Your task to perform on an android device: choose inbox layout in the gmail app Image 0: 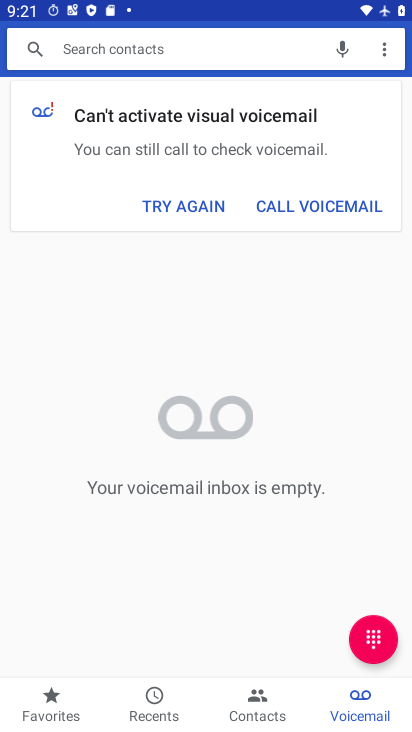
Step 0: press home button
Your task to perform on an android device: choose inbox layout in the gmail app Image 1: 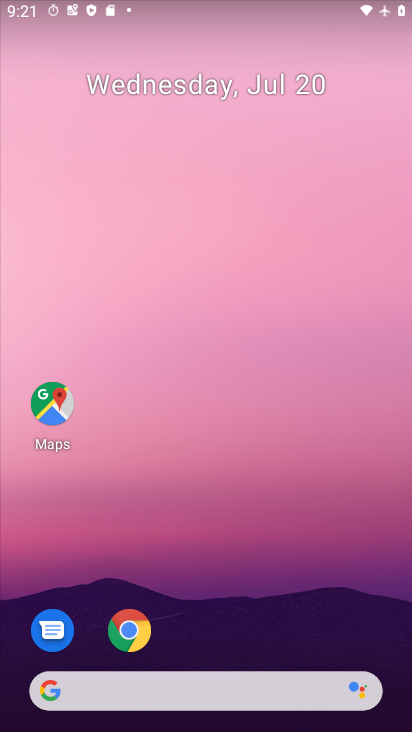
Step 1: drag from (221, 706) to (277, 106)
Your task to perform on an android device: choose inbox layout in the gmail app Image 2: 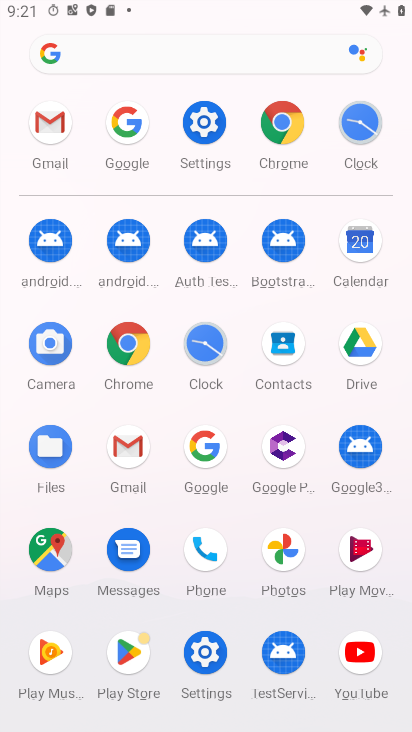
Step 2: click (139, 469)
Your task to perform on an android device: choose inbox layout in the gmail app Image 3: 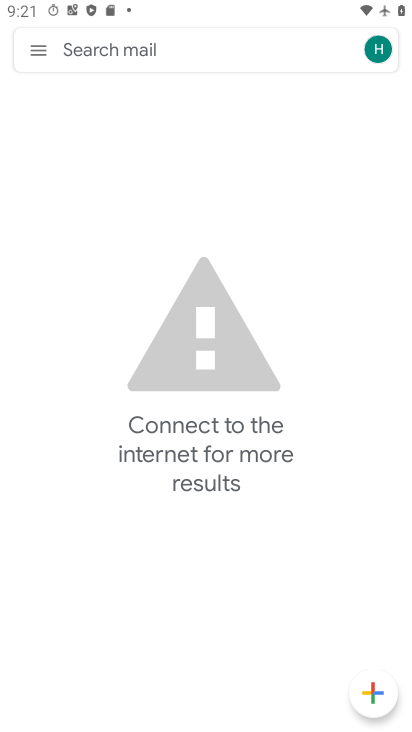
Step 3: click (43, 55)
Your task to perform on an android device: choose inbox layout in the gmail app Image 4: 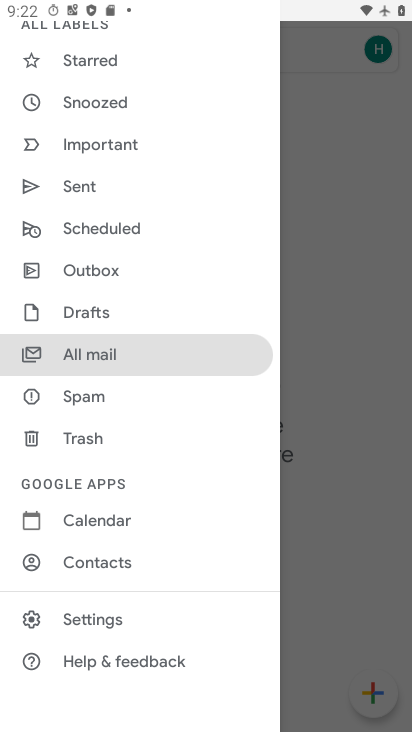
Step 4: task complete